Your task to perform on an android device: turn on javascript in the chrome app Image 0: 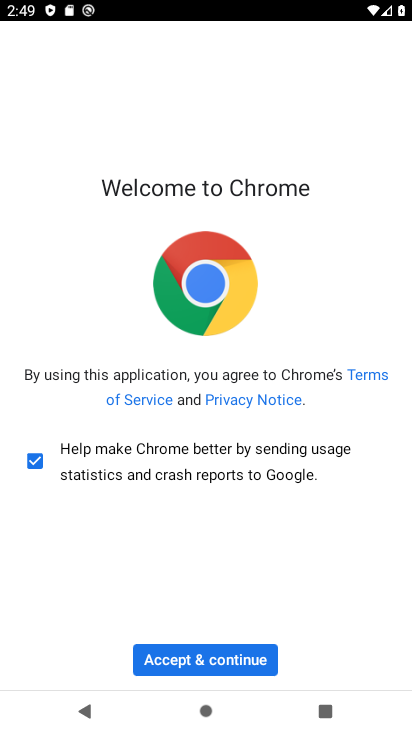
Step 0: click (194, 667)
Your task to perform on an android device: turn on javascript in the chrome app Image 1: 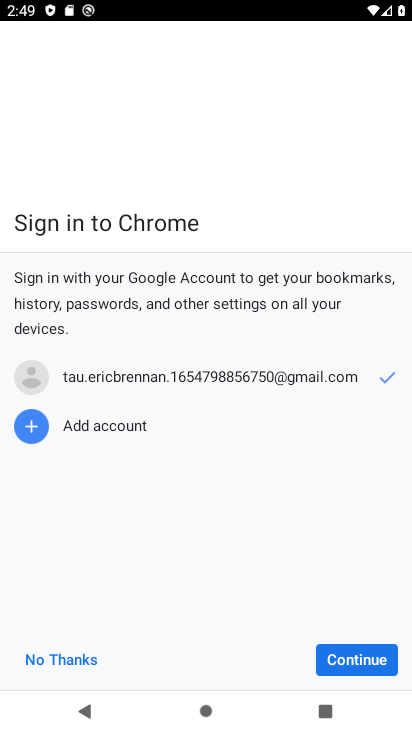
Step 1: click (353, 647)
Your task to perform on an android device: turn on javascript in the chrome app Image 2: 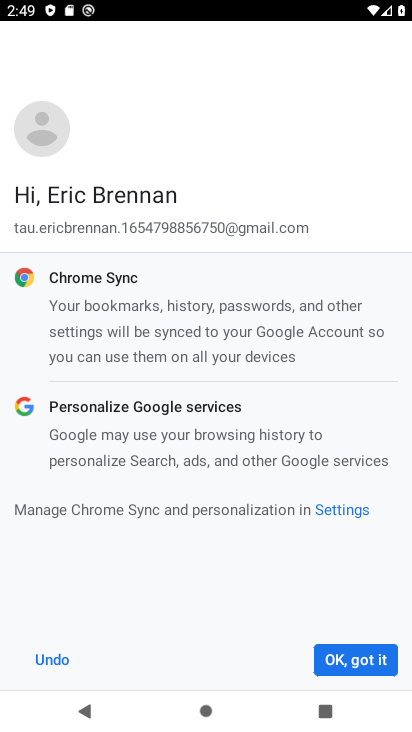
Step 2: click (386, 663)
Your task to perform on an android device: turn on javascript in the chrome app Image 3: 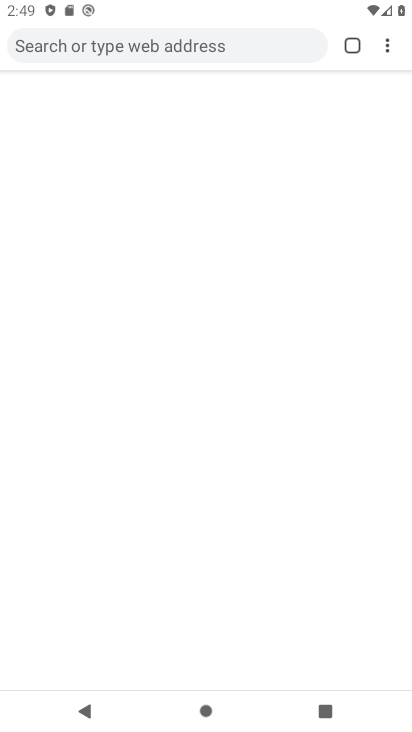
Step 3: click (386, 48)
Your task to perform on an android device: turn on javascript in the chrome app Image 4: 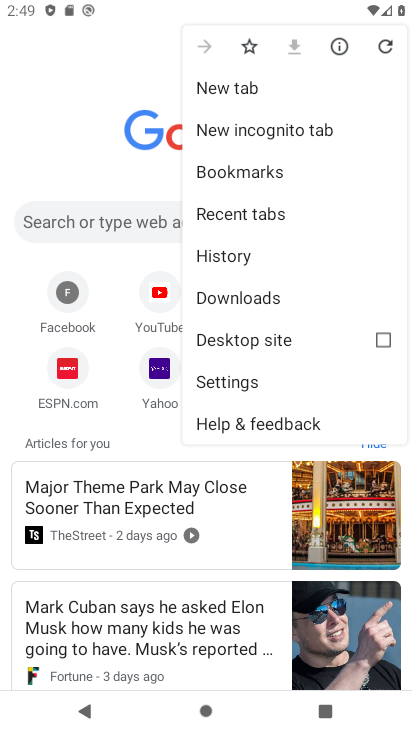
Step 4: click (202, 384)
Your task to perform on an android device: turn on javascript in the chrome app Image 5: 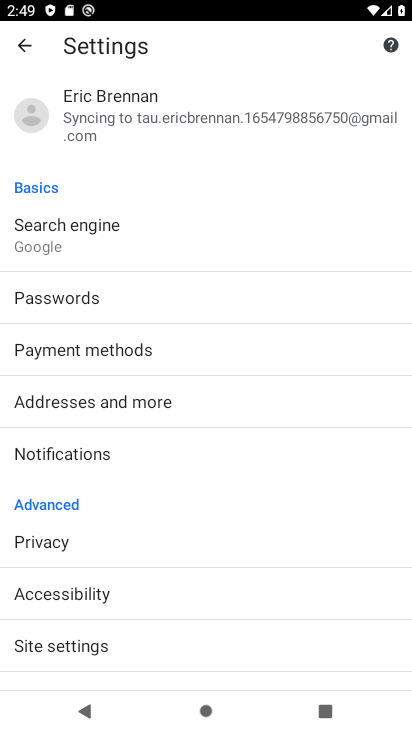
Step 5: click (17, 646)
Your task to perform on an android device: turn on javascript in the chrome app Image 6: 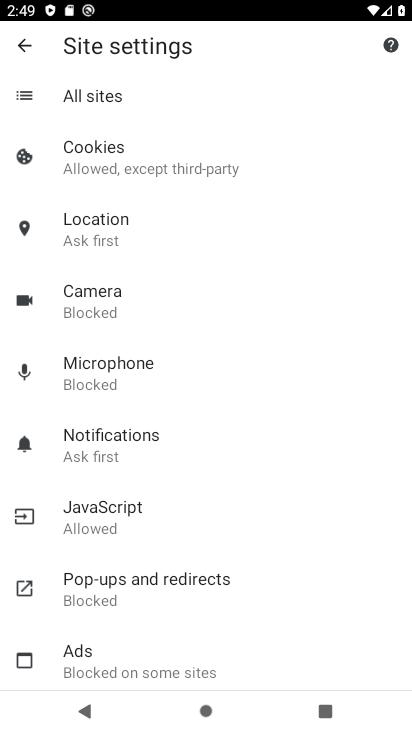
Step 6: click (108, 522)
Your task to perform on an android device: turn on javascript in the chrome app Image 7: 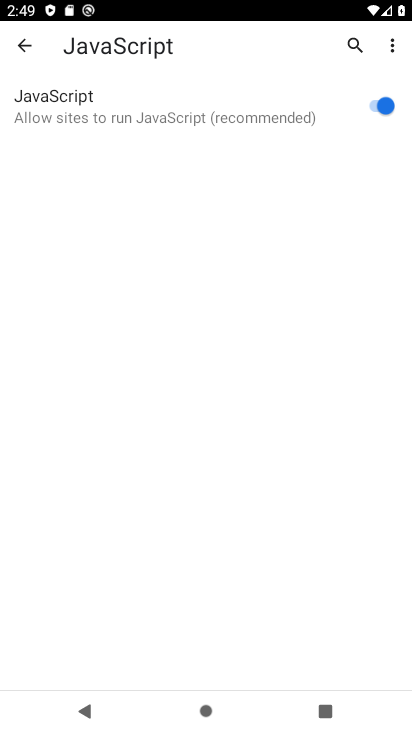
Step 7: task complete